Your task to perform on an android device: Go to notification settings Image 0: 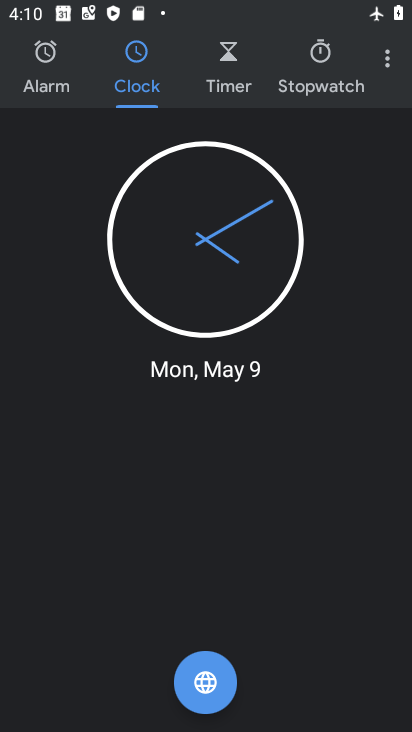
Step 0: press home button
Your task to perform on an android device: Go to notification settings Image 1: 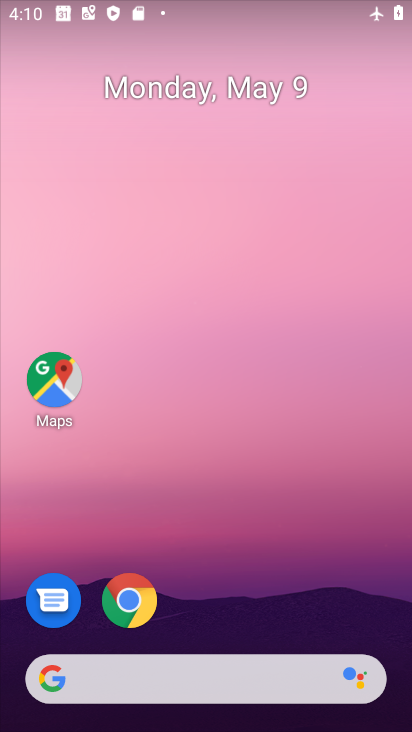
Step 1: drag from (213, 659) to (263, 21)
Your task to perform on an android device: Go to notification settings Image 2: 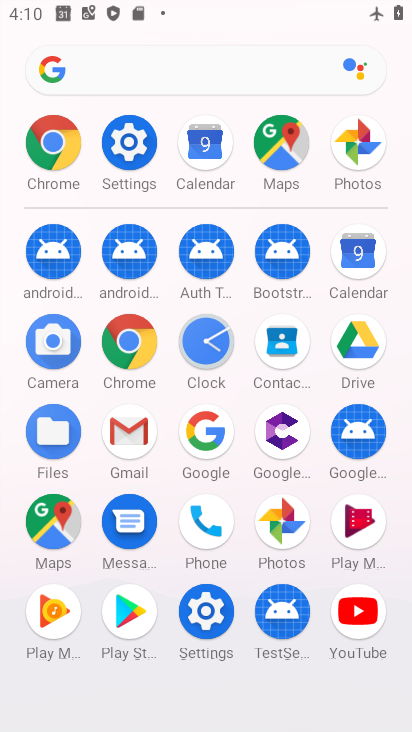
Step 2: click (121, 151)
Your task to perform on an android device: Go to notification settings Image 3: 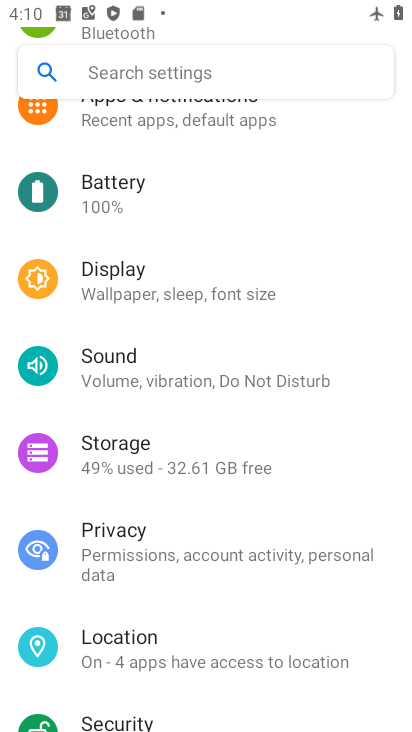
Step 3: drag from (167, 190) to (211, 477)
Your task to perform on an android device: Go to notification settings Image 4: 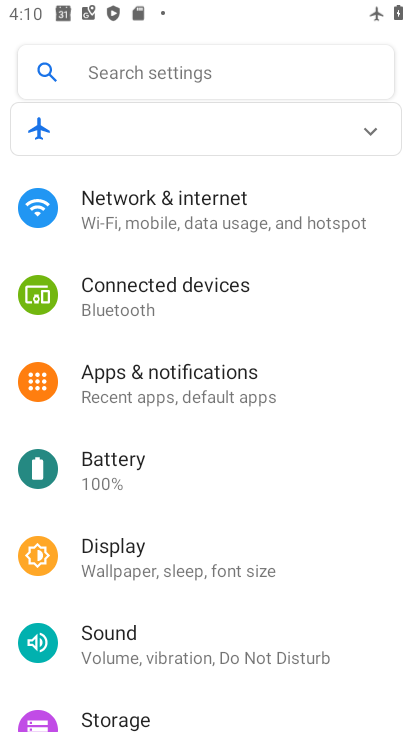
Step 4: click (215, 393)
Your task to perform on an android device: Go to notification settings Image 5: 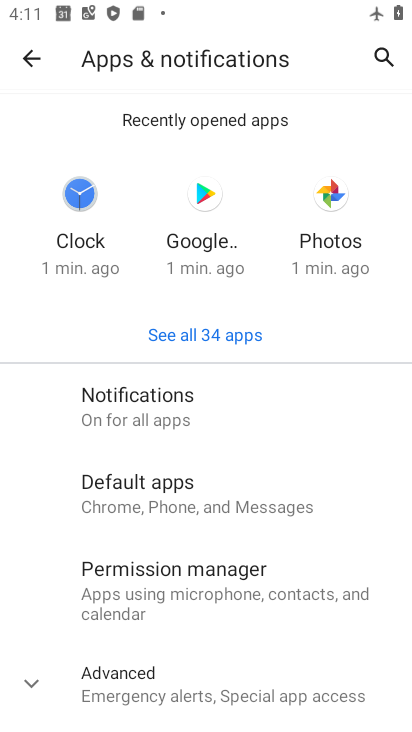
Step 5: click (142, 414)
Your task to perform on an android device: Go to notification settings Image 6: 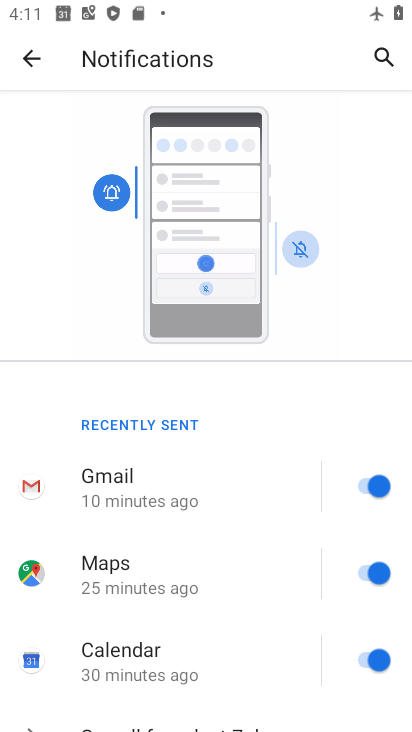
Step 6: task complete